Your task to perform on an android device: Go to notification settings Image 0: 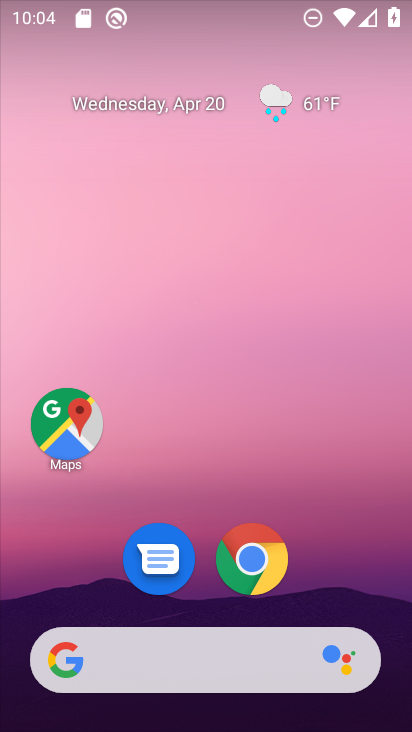
Step 0: drag from (379, 611) to (301, 184)
Your task to perform on an android device: Go to notification settings Image 1: 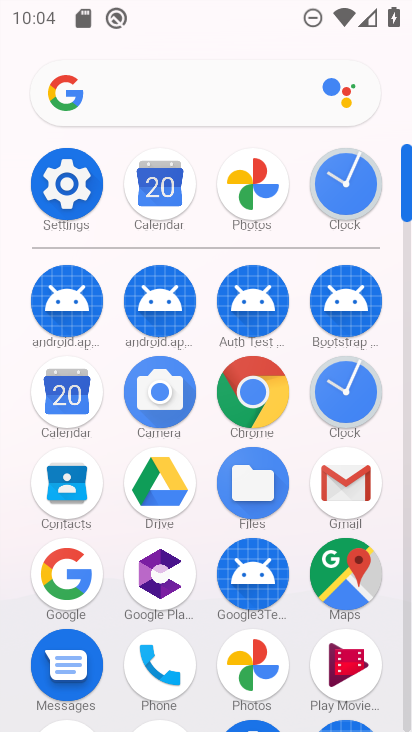
Step 1: click (407, 693)
Your task to perform on an android device: Go to notification settings Image 2: 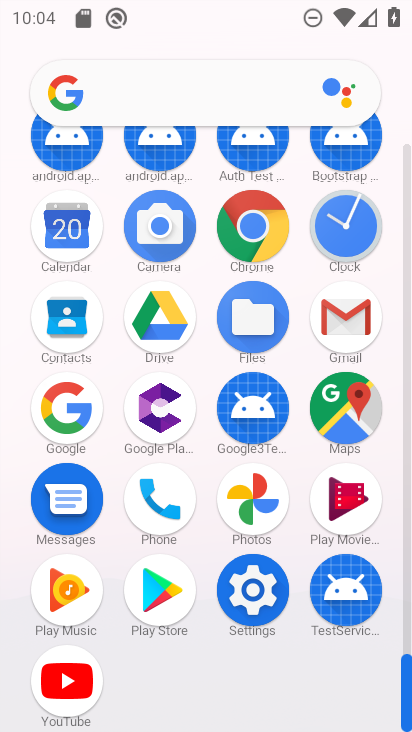
Step 2: click (250, 591)
Your task to perform on an android device: Go to notification settings Image 3: 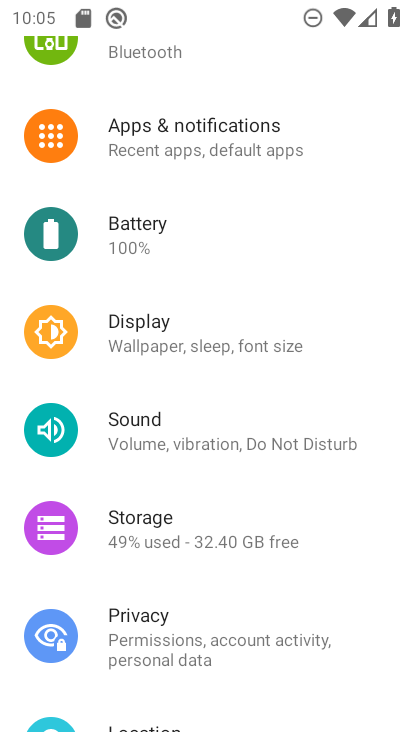
Step 3: click (183, 134)
Your task to perform on an android device: Go to notification settings Image 4: 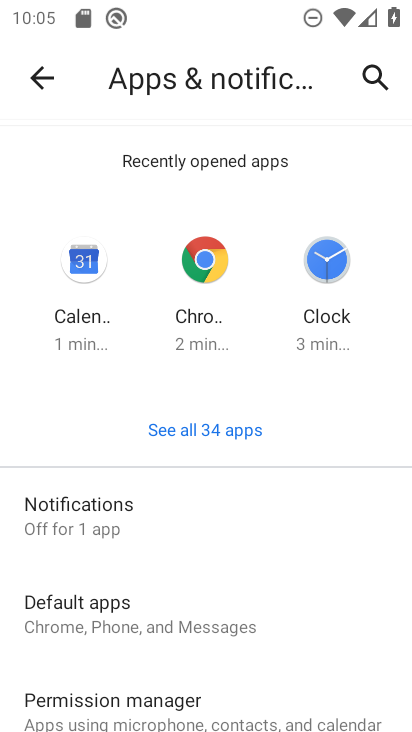
Step 4: click (90, 508)
Your task to perform on an android device: Go to notification settings Image 5: 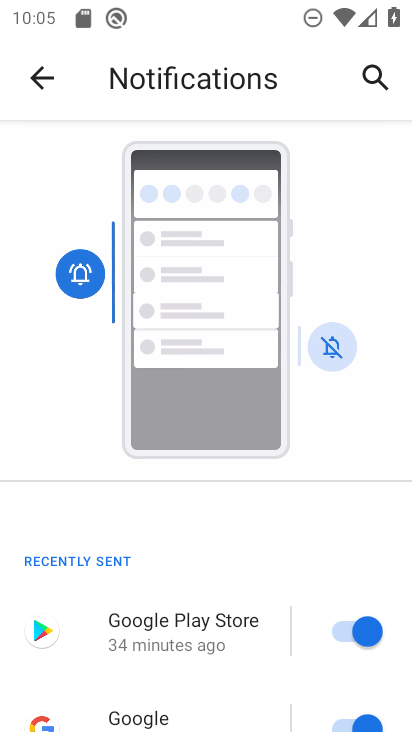
Step 5: drag from (282, 636) to (295, 292)
Your task to perform on an android device: Go to notification settings Image 6: 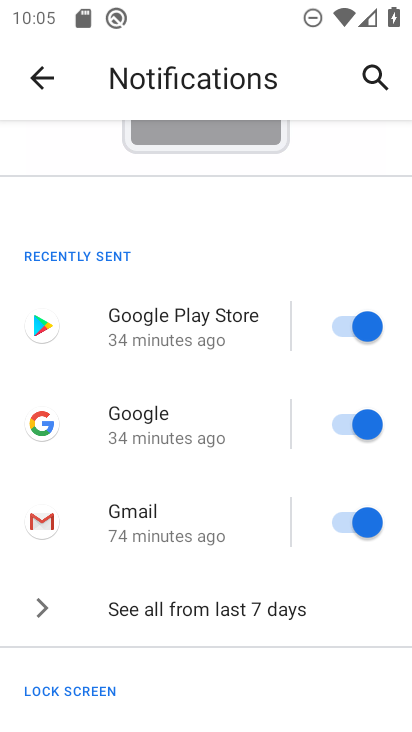
Step 6: drag from (289, 555) to (285, 219)
Your task to perform on an android device: Go to notification settings Image 7: 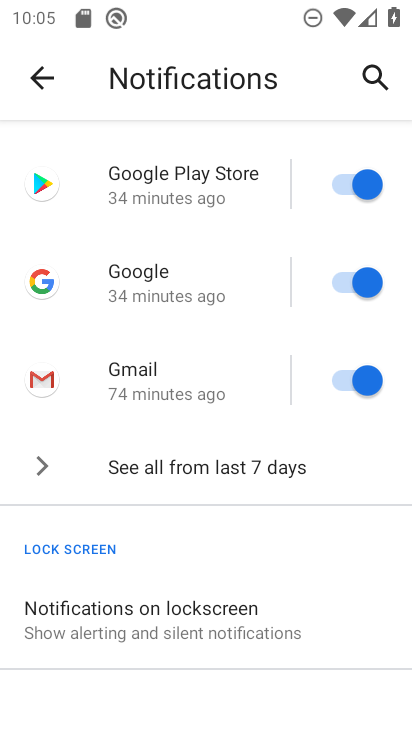
Step 7: drag from (266, 583) to (274, 204)
Your task to perform on an android device: Go to notification settings Image 8: 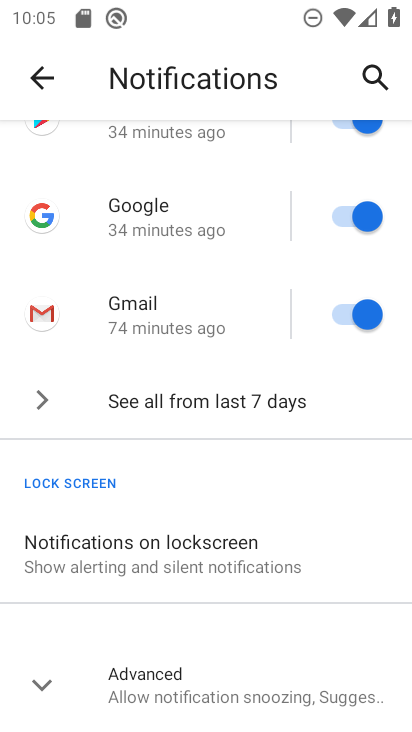
Step 8: click (51, 684)
Your task to perform on an android device: Go to notification settings Image 9: 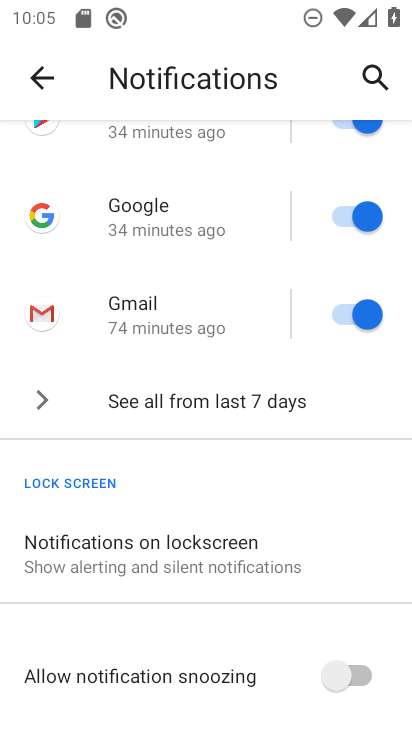
Step 9: task complete